Your task to perform on an android device: remove spam from my inbox in the gmail app Image 0: 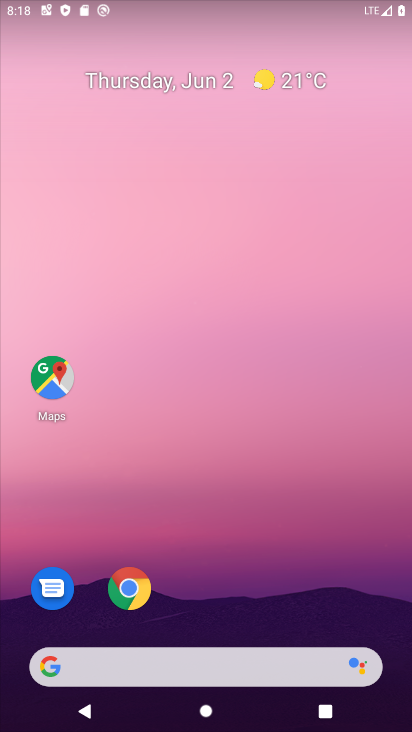
Step 0: drag from (224, 502) to (234, 74)
Your task to perform on an android device: remove spam from my inbox in the gmail app Image 1: 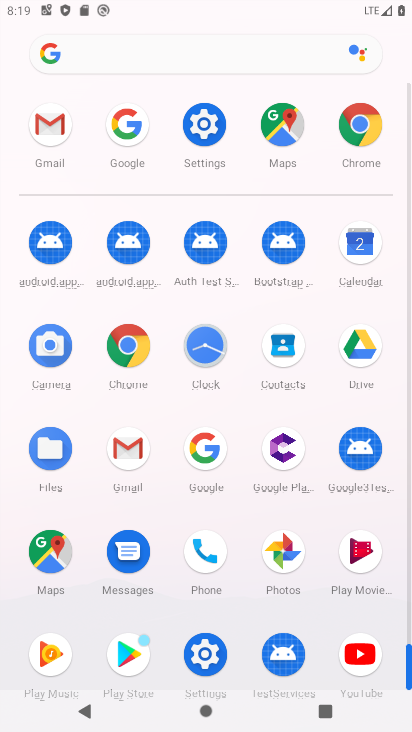
Step 1: click (124, 448)
Your task to perform on an android device: remove spam from my inbox in the gmail app Image 2: 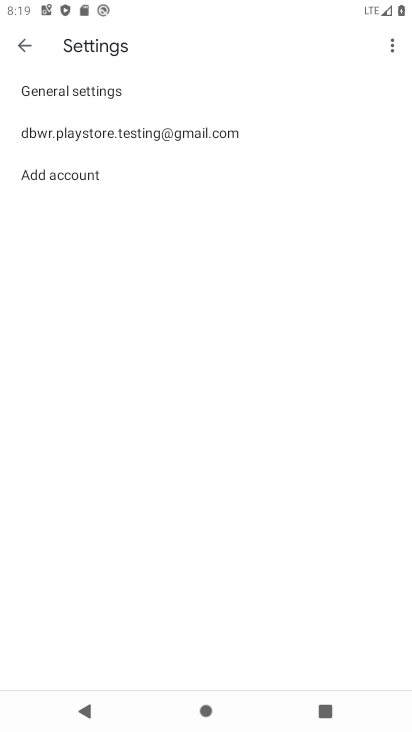
Step 2: task complete